Your task to perform on an android device: turn on improve location accuracy Image 0: 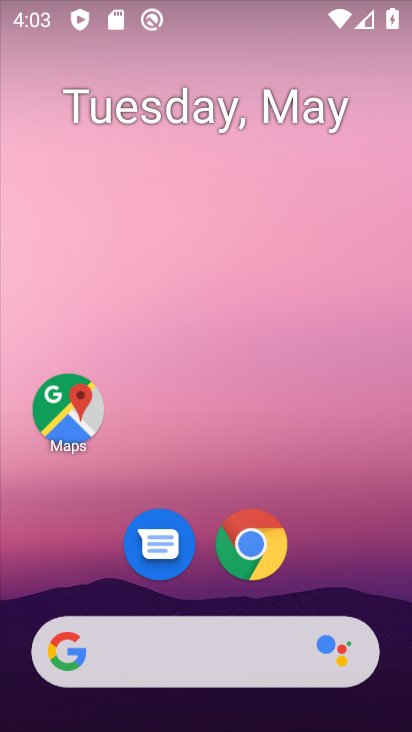
Step 0: drag from (220, 582) to (222, 146)
Your task to perform on an android device: turn on improve location accuracy Image 1: 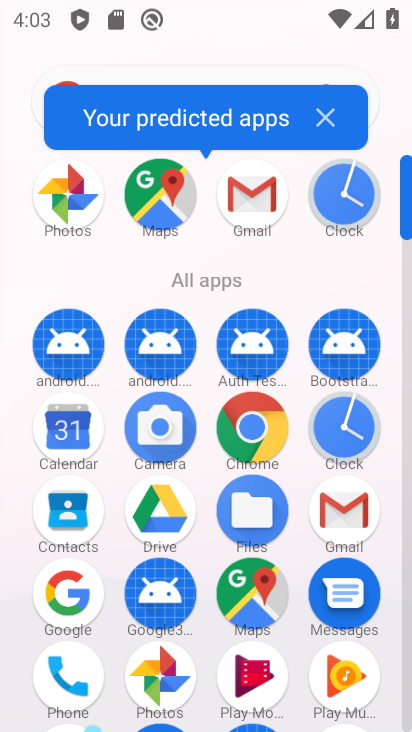
Step 1: drag from (210, 620) to (193, 254)
Your task to perform on an android device: turn on improve location accuracy Image 2: 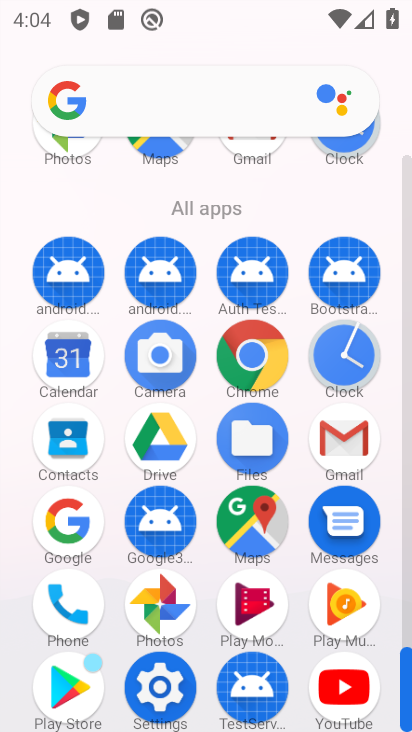
Step 2: click (169, 674)
Your task to perform on an android device: turn on improve location accuracy Image 3: 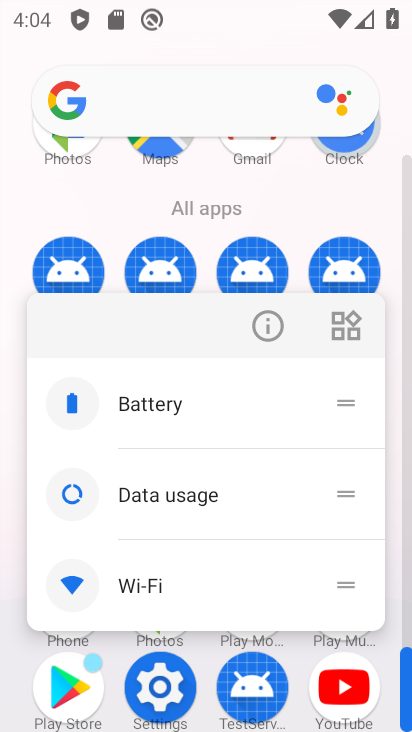
Step 3: click (168, 701)
Your task to perform on an android device: turn on improve location accuracy Image 4: 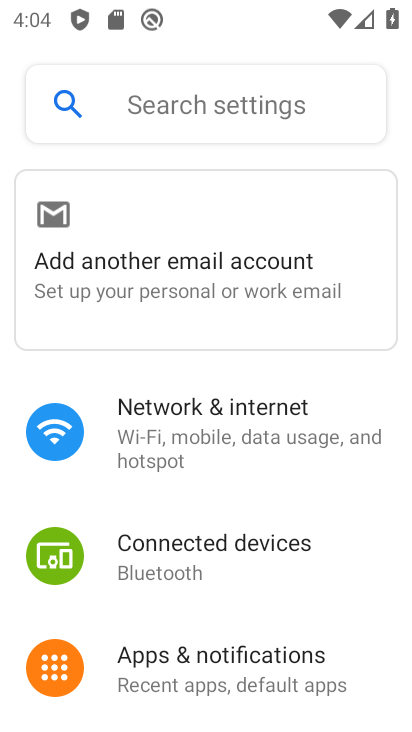
Step 4: drag from (176, 670) to (176, 236)
Your task to perform on an android device: turn on improve location accuracy Image 5: 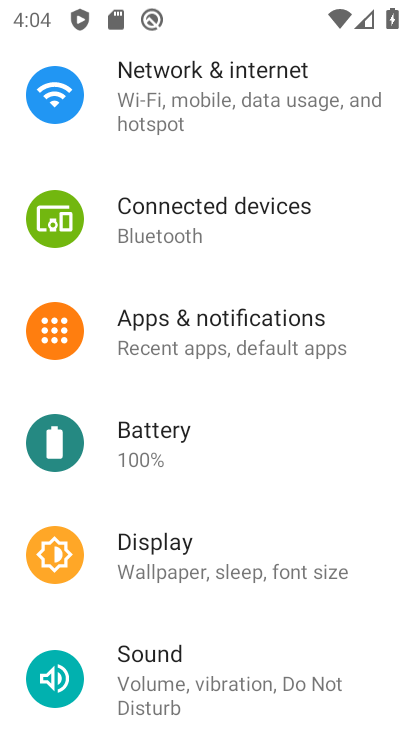
Step 5: drag from (185, 616) to (184, 245)
Your task to perform on an android device: turn on improve location accuracy Image 6: 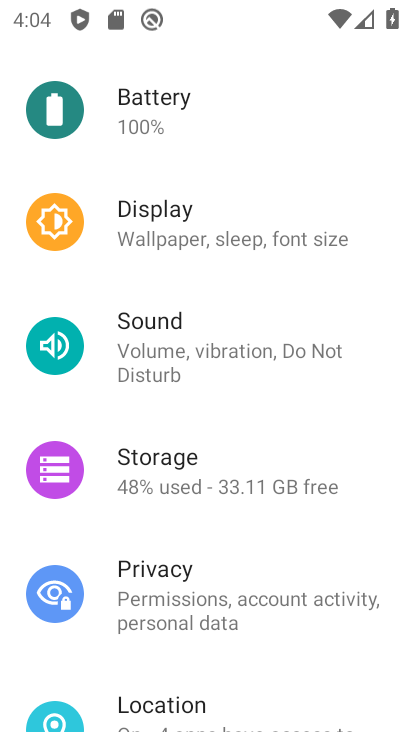
Step 6: click (154, 705)
Your task to perform on an android device: turn on improve location accuracy Image 7: 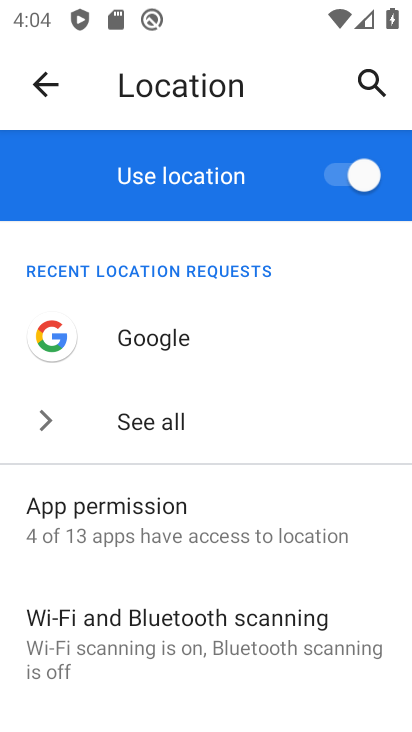
Step 7: drag from (176, 673) to (176, 302)
Your task to perform on an android device: turn on improve location accuracy Image 8: 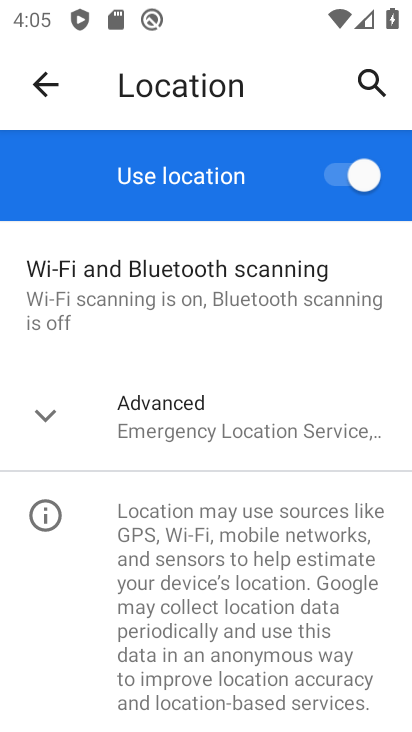
Step 8: click (175, 428)
Your task to perform on an android device: turn on improve location accuracy Image 9: 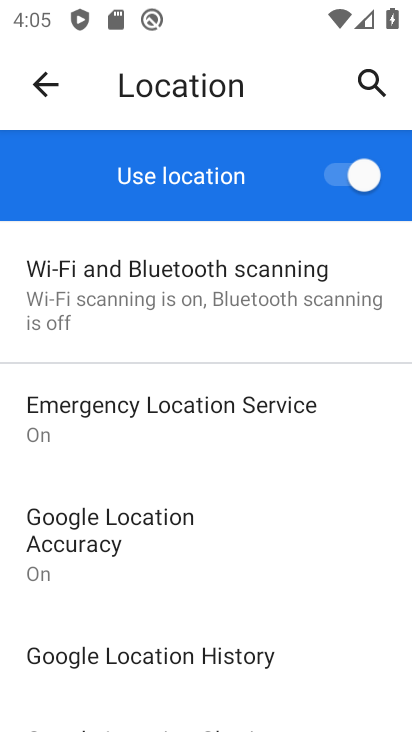
Step 9: click (96, 552)
Your task to perform on an android device: turn on improve location accuracy Image 10: 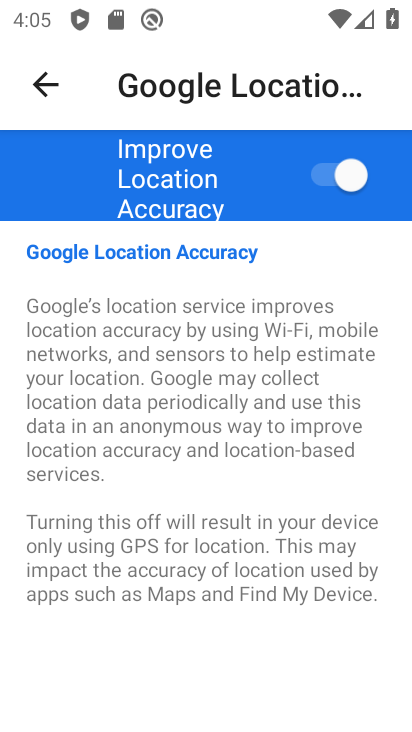
Step 10: task complete